Your task to perform on an android device: toggle priority inbox in the gmail app Image 0: 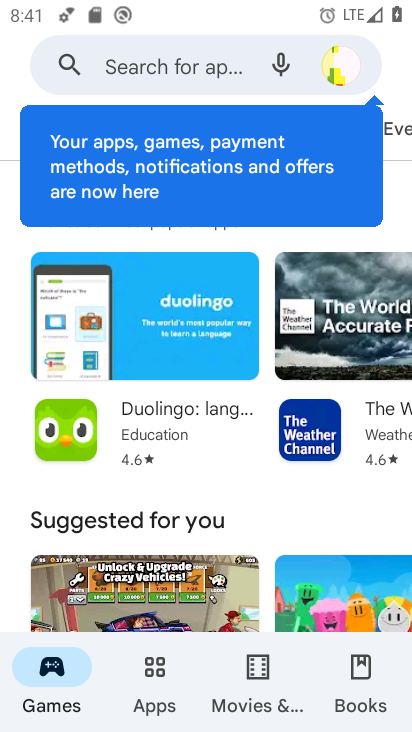
Step 0: press home button
Your task to perform on an android device: toggle priority inbox in the gmail app Image 1: 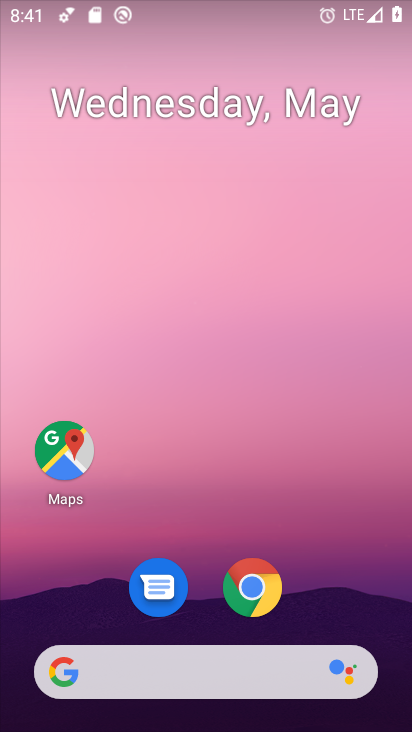
Step 1: drag from (198, 556) to (246, 221)
Your task to perform on an android device: toggle priority inbox in the gmail app Image 2: 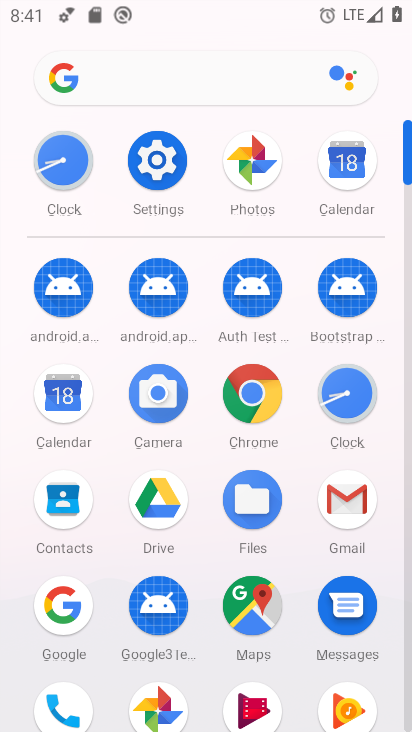
Step 2: click (355, 489)
Your task to perform on an android device: toggle priority inbox in the gmail app Image 3: 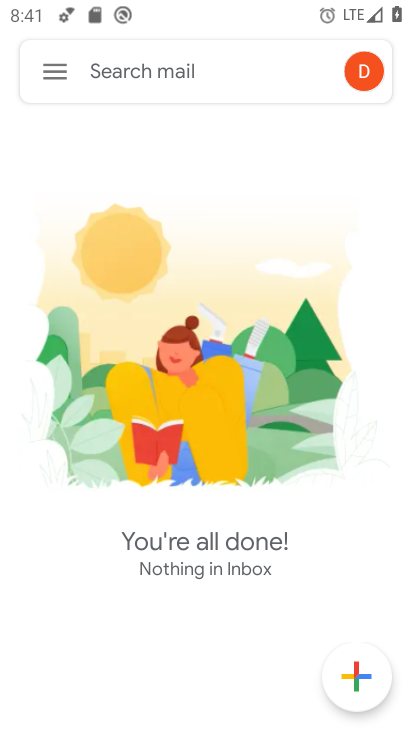
Step 3: click (56, 82)
Your task to perform on an android device: toggle priority inbox in the gmail app Image 4: 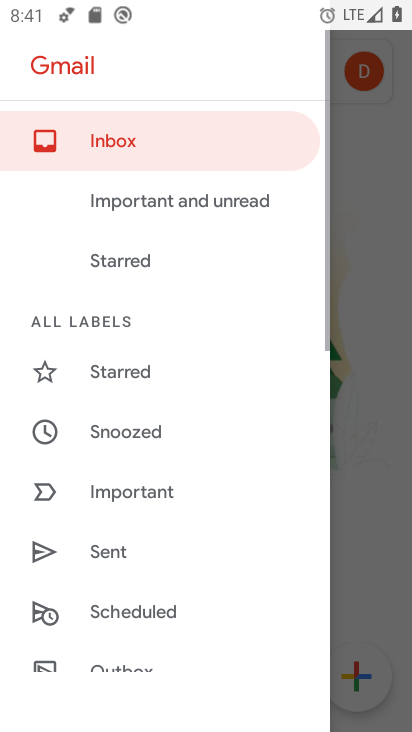
Step 4: drag from (116, 539) to (190, 270)
Your task to perform on an android device: toggle priority inbox in the gmail app Image 5: 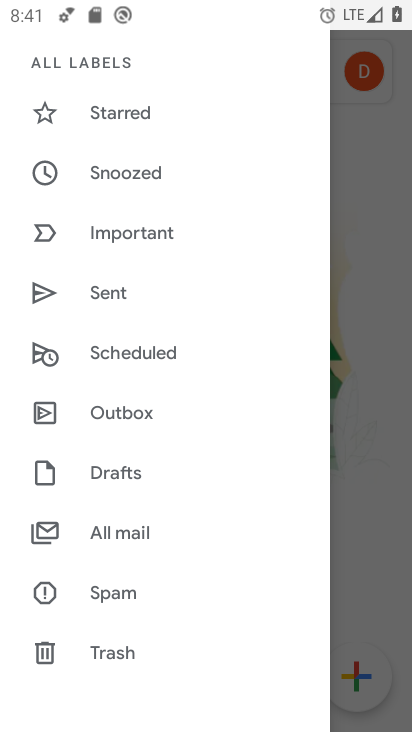
Step 5: drag from (146, 598) to (231, 248)
Your task to perform on an android device: toggle priority inbox in the gmail app Image 6: 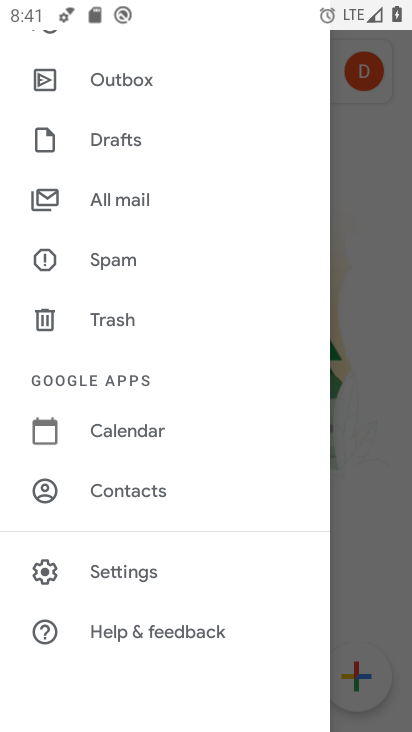
Step 6: click (132, 572)
Your task to perform on an android device: toggle priority inbox in the gmail app Image 7: 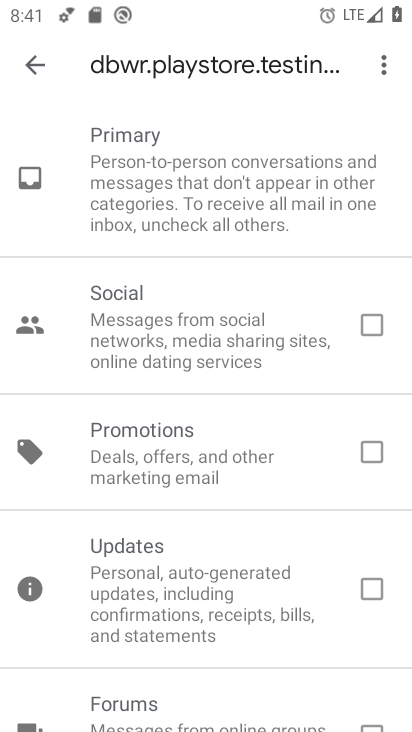
Step 7: click (35, 61)
Your task to perform on an android device: toggle priority inbox in the gmail app Image 8: 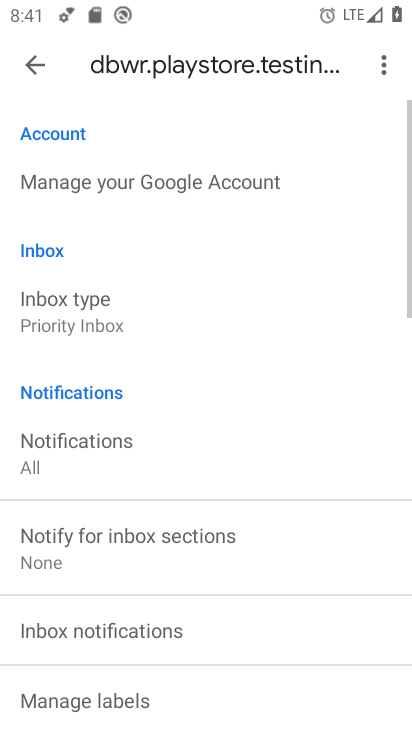
Step 8: click (114, 328)
Your task to perform on an android device: toggle priority inbox in the gmail app Image 9: 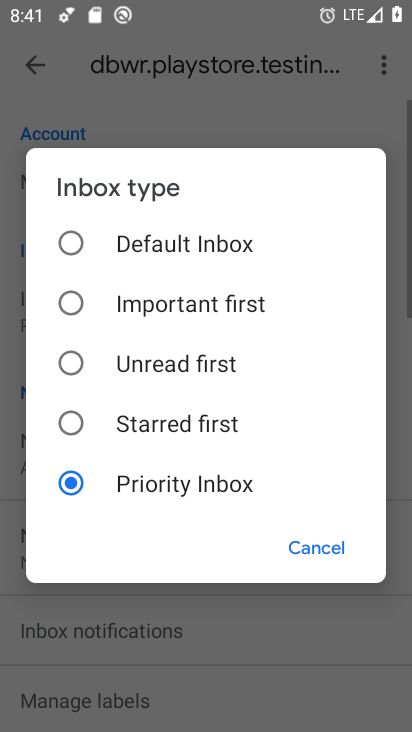
Step 9: click (130, 308)
Your task to perform on an android device: toggle priority inbox in the gmail app Image 10: 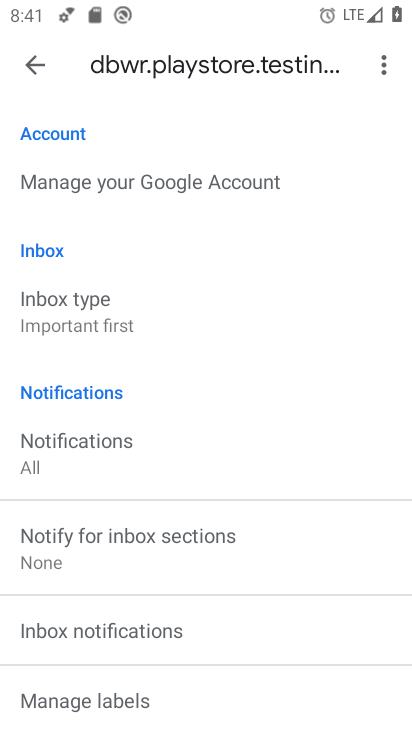
Step 10: task complete